Your task to perform on an android device: Open sound settings Image 0: 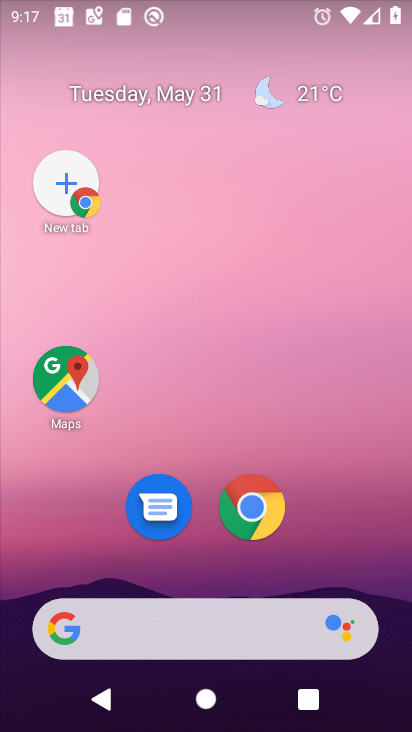
Step 0: drag from (287, 715) to (190, 60)
Your task to perform on an android device: Open sound settings Image 1: 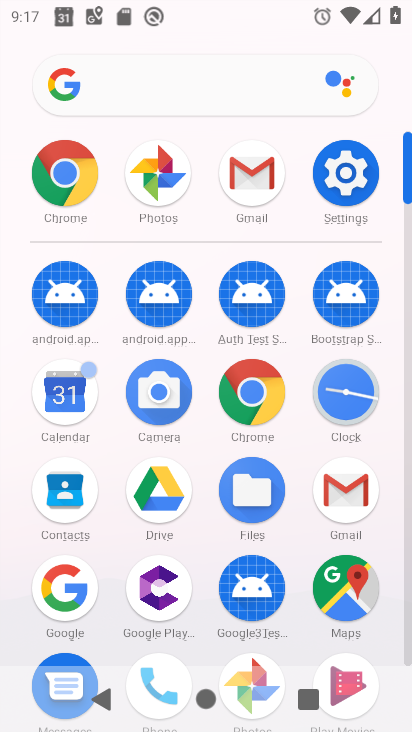
Step 1: click (349, 170)
Your task to perform on an android device: Open sound settings Image 2: 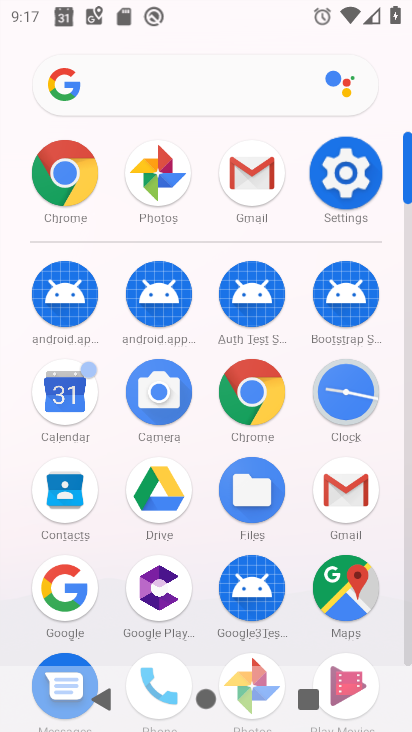
Step 2: click (348, 171)
Your task to perform on an android device: Open sound settings Image 3: 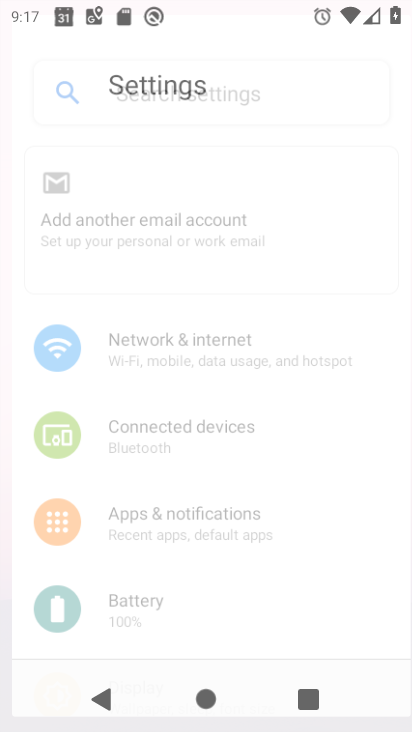
Step 3: click (346, 173)
Your task to perform on an android device: Open sound settings Image 4: 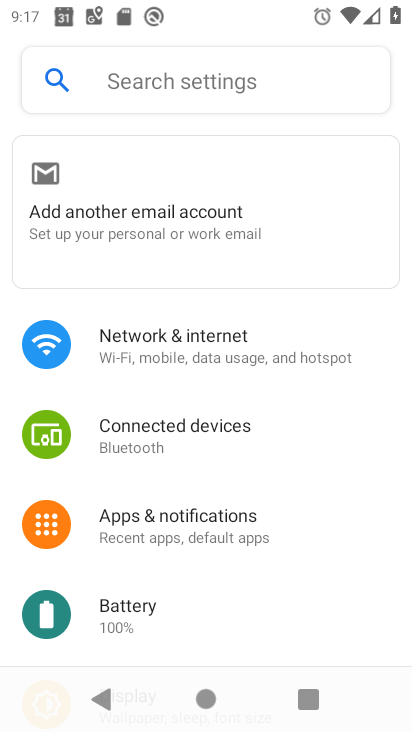
Step 4: drag from (198, 516) to (160, 191)
Your task to perform on an android device: Open sound settings Image 5: 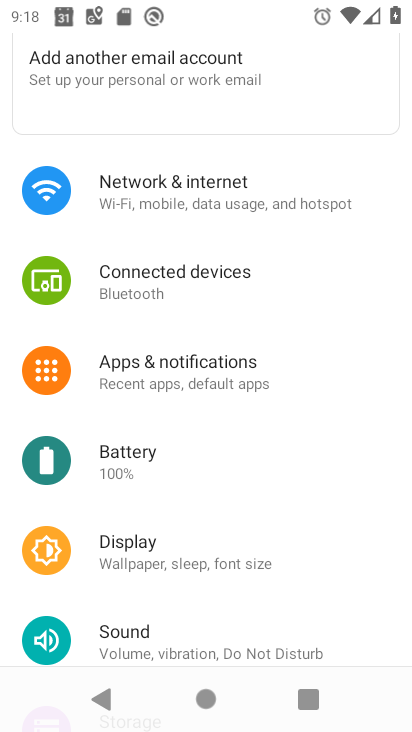
Step 5: drag from (163, 493) to (146, 341)
Your task to perform on an android device: Open sound settings Image 6: 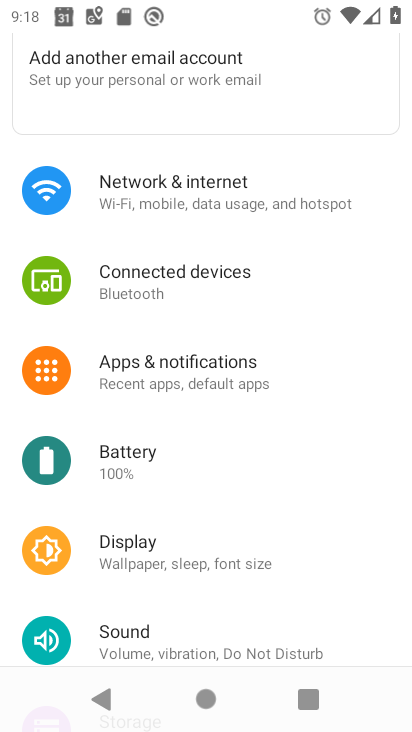
Step 6: drag from (191, 562) to (159, 170)
Your task to perform on an android device: Open sound settings Image 7: 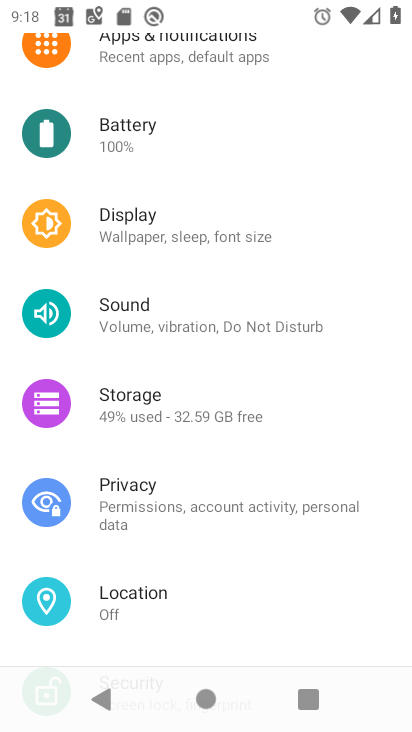
Step 7: drag from (273, 471) to (264, 212)
Your task to perform on an android device: Open sound settings Image 8: 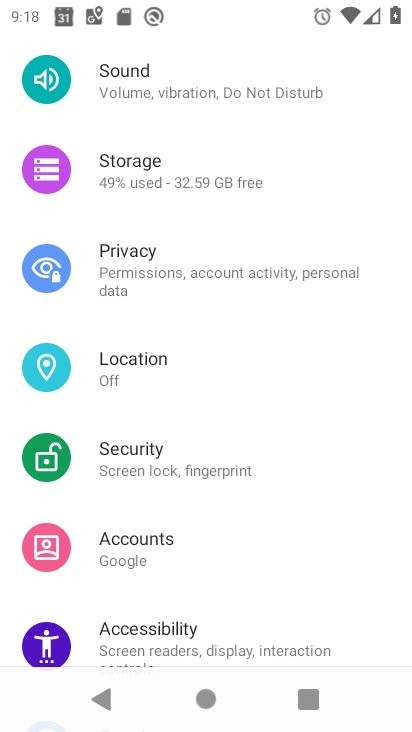
Step 8: click (129, 88)
Your task to perform on an android device: Open sound settings Image 9: 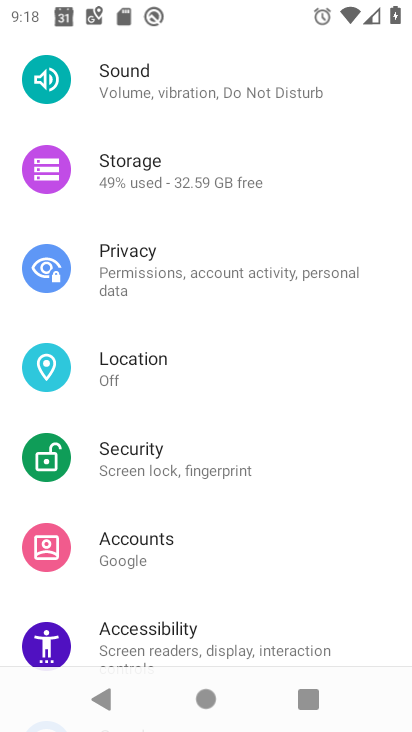
Step 9: click (129, 88)
Your task to perform on an android device: Open sound settings Image 10: 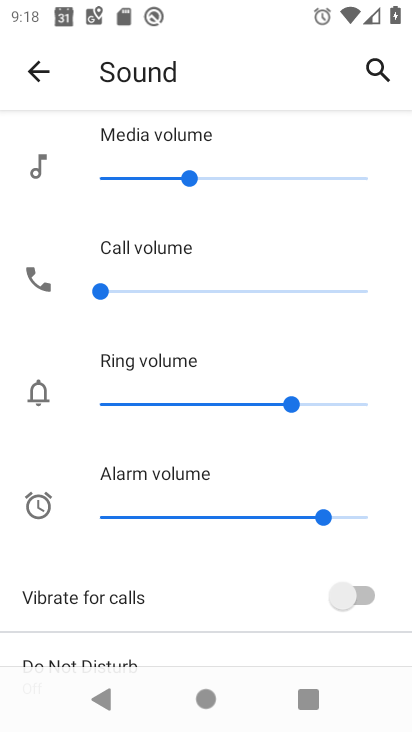
Step 10: task complete